Your task to perform on an android device: What's the weather? Image 0: 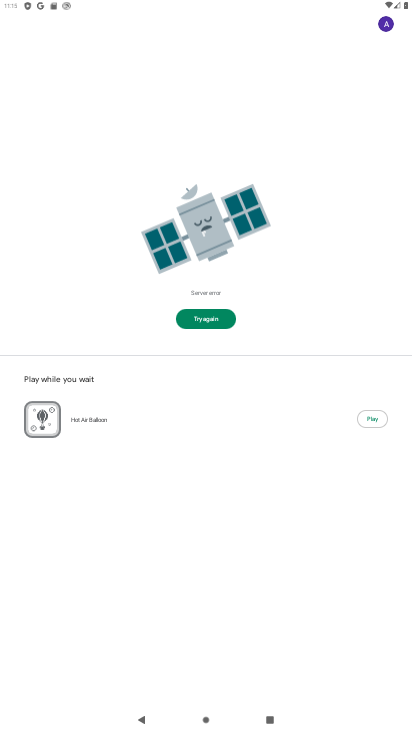
Step 0: press home button
Your task to perform on an android device: What's the weather? Image 1: 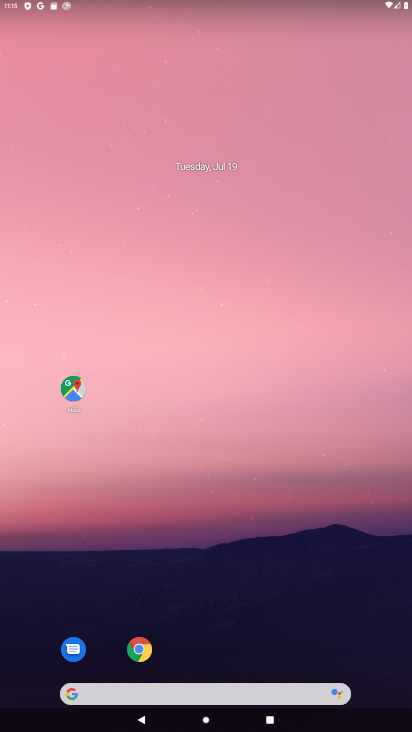
Step 1: drag from (278, 656) to (303, 179)
Your task to perform on an android device: What's the weather? Image 2: 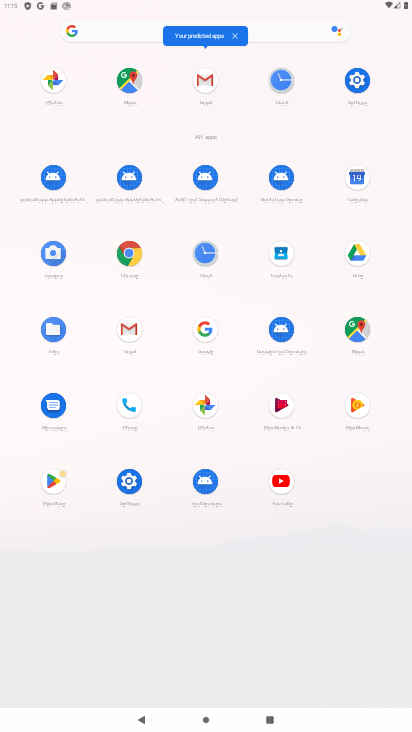
Step 2: click (125, 256)
Your task to perform on an android device: What's the weather? Image 3: 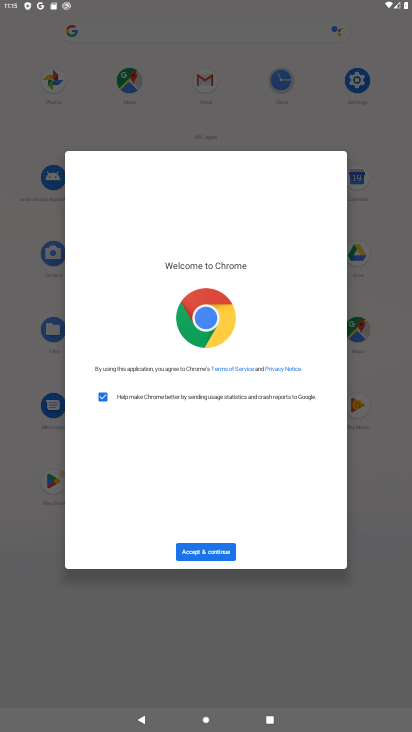
Step 3: click (204, 552)
Your task to perform on an android device: What's the weather? Image 4: 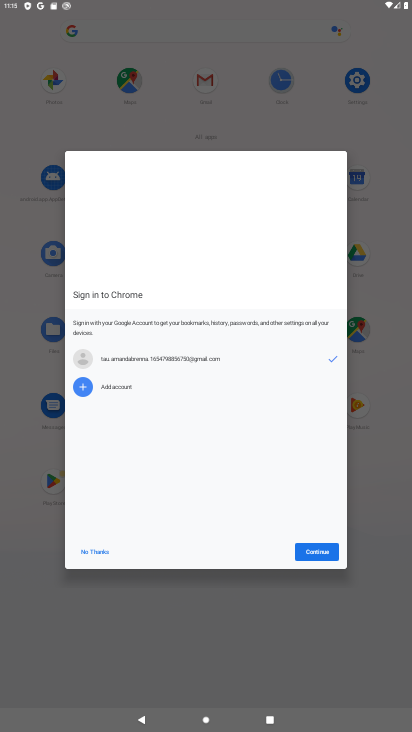
Step 4: click (311, 555)
Your task to perform on an android device: What's the weather? Image 5: 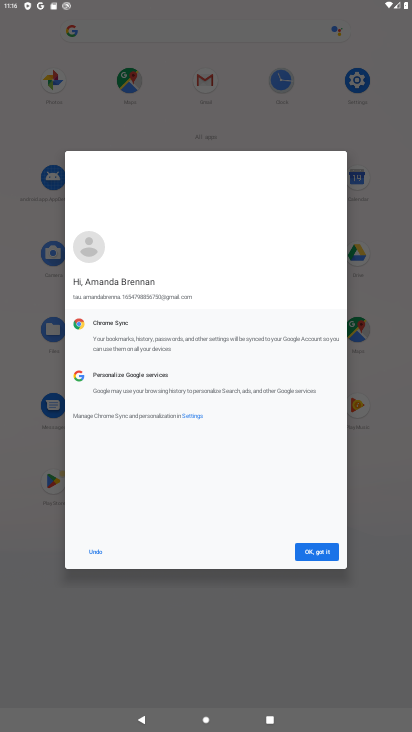
Step 5: click (323, 554)
Your task to perform on an android device: What's the weather? Image 6: 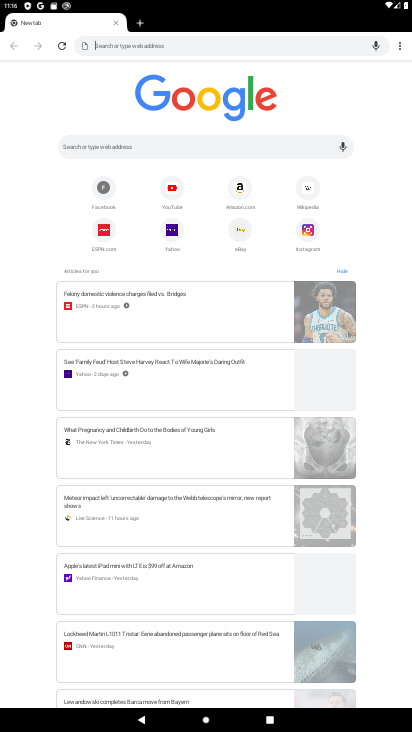
Step 6: click (296, 44)
Your task to perform on an android device: What's the weather? Image 7: 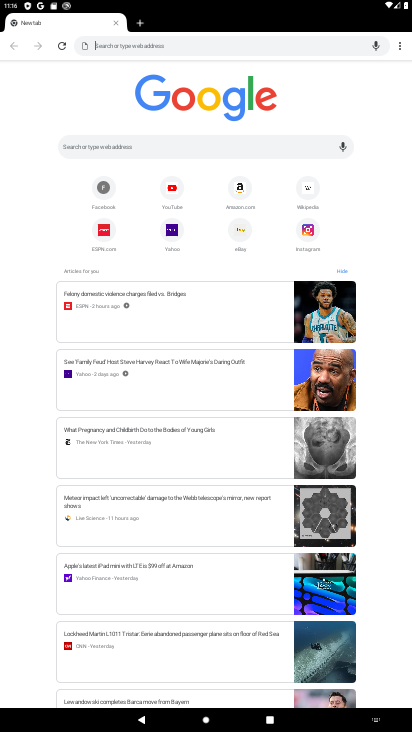
Step 7: click (296, 44)
Your task to perform on an android device: What's the weather? Image 8: 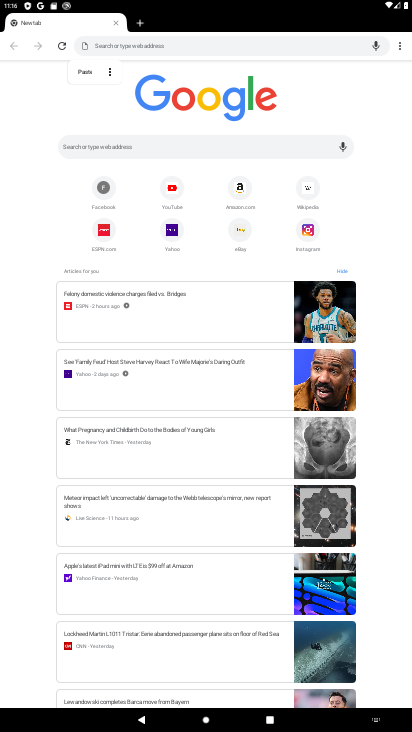
Step 8: type "What's the weather?"
Your task to perform on an android device: What's the weather? Image 9: 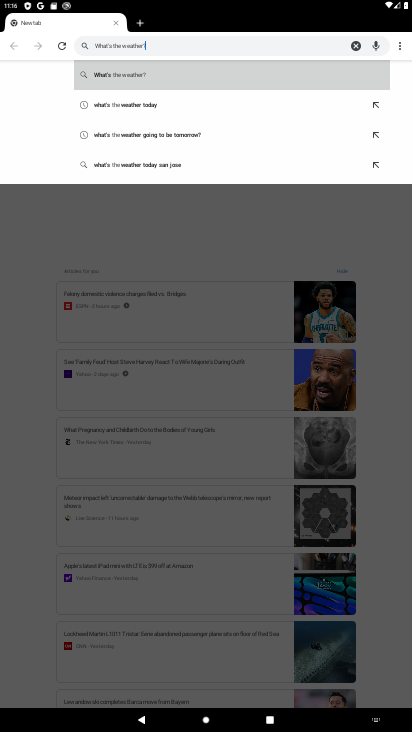
Step 9: click (225, 73)
Your task to perform on an android device: What's the weather? Image 10: 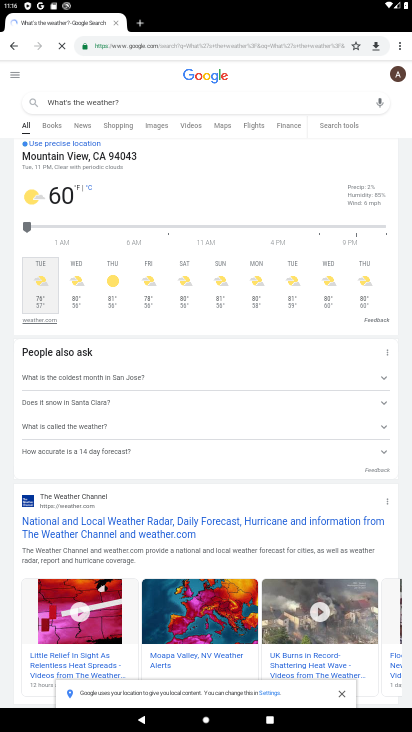
Step 10: task complete